Your task to perform on an android device: toggle priority inbox in the gmail app Image 0: 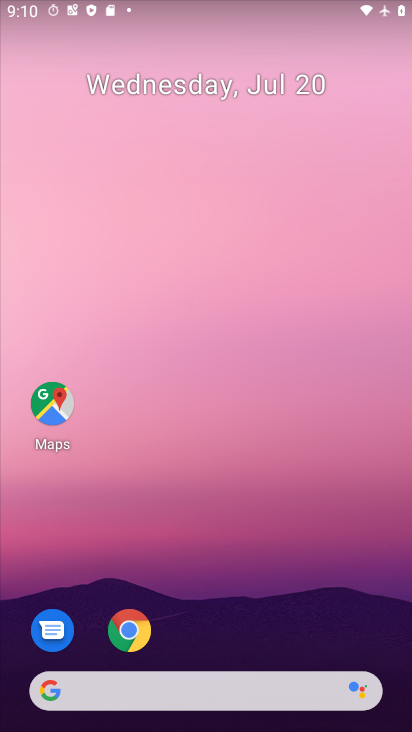
Step 0: drag from (222, 663) to (230, 177)
Your task to perform on an android device: toggle priority inbox in the gmail app Image 1: 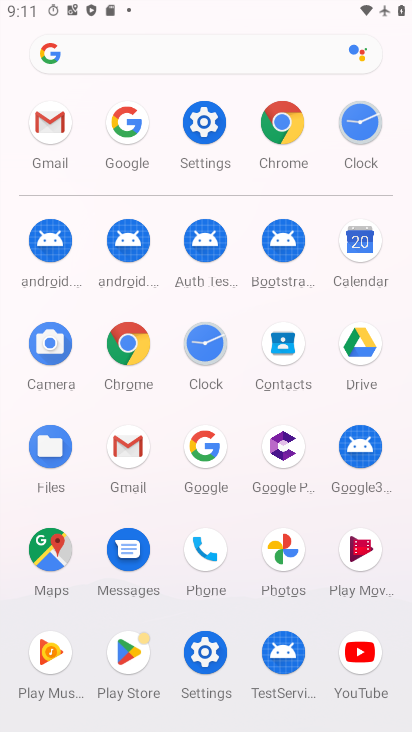
Step 1: click (136, 472)
Your task to perform on an android device: toggle priority inbox in the gmail app Image 2: 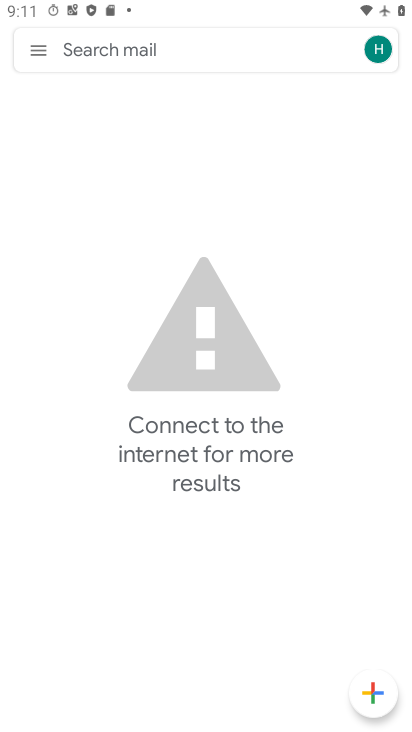
Step 2: click (32, 53)
Your task to perform on an android device: toggle priority inbox in the gmail app Image 3: 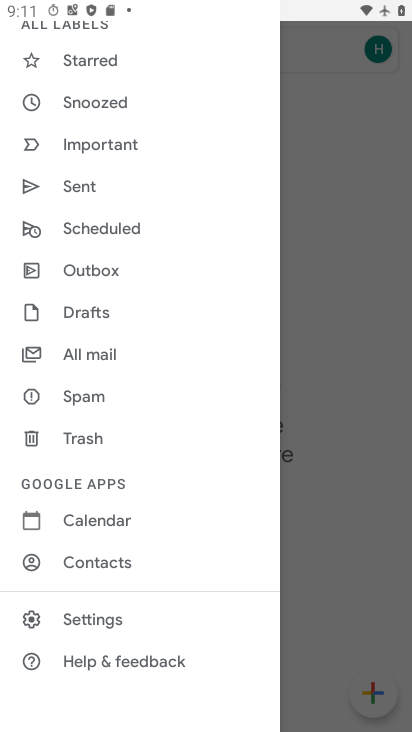
Step 3: click (104, 624)
Your task to perform on an android device: toggle priority inbox in the gmail app Image 4: 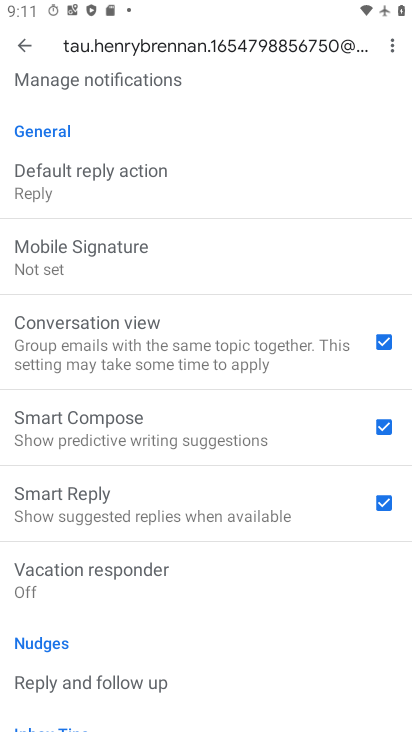
Step 4: drag from (130, 290) to (157, 674)
Your task to perform on an android device: toggle priority inbox in the gmail app Image 5: 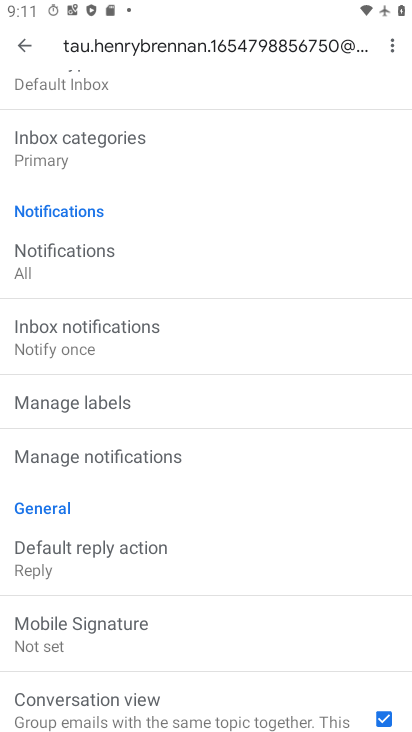
Step 5: drag from (161, 254) to (168, 622)
Your task to perform on an android device: toggle priority inbox in the gmail app Image 6: 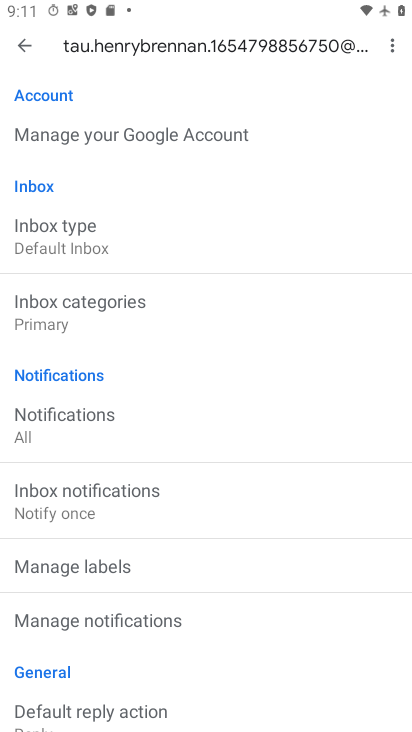
Step 6: click (83, 315)
Your task to perform on an android device: toggle priority inbox in the gmail app Image 7: 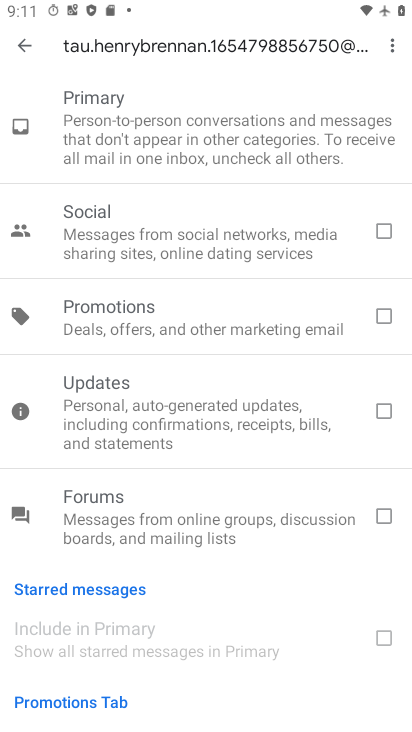
Step 7: drag from (169, 603) to (168, 349)
Your task to perform on an android device: toggle priority inbox in the gmail app Image 8: 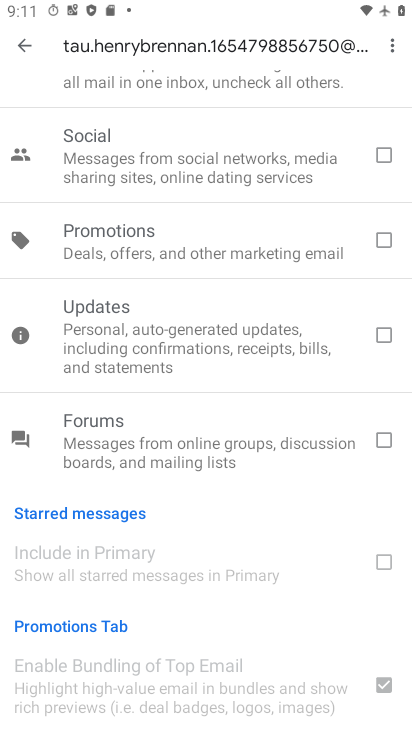
Step 8: click (22, 45)
Your task to perform on an android device: toggle priority inbox in the gmail app Image 9: 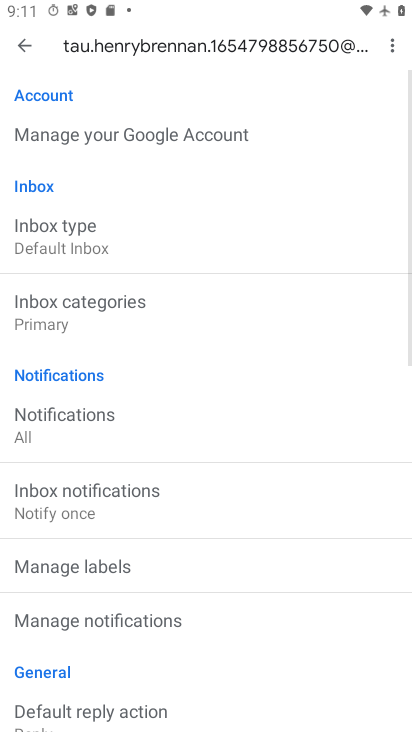
Step 9: click (80, 242)
Your task to perform on an android device: toggle priority inbox in the gmail app Image 10: 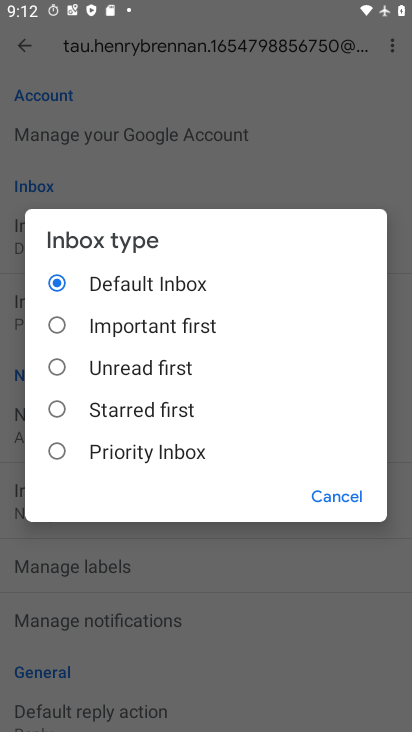
Step 10: click (61, 452)
Your task to perform on an android device: toggle priority inbox in the gmail app Image 11: 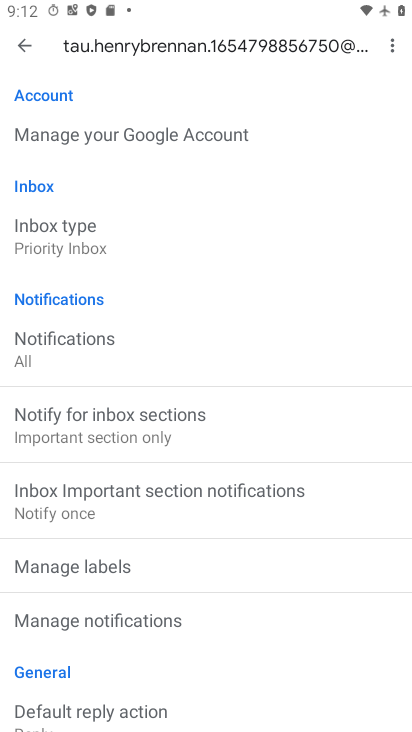
Step 11: task complete